Your task to perform on an android device: What's on my calendar today? Image 0: 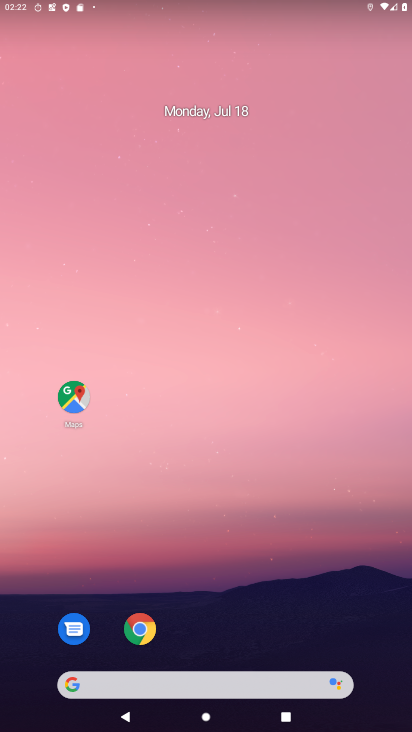
Step 0: press home button
Your task to perform on an android device: What's on my calendar today? Image 1: 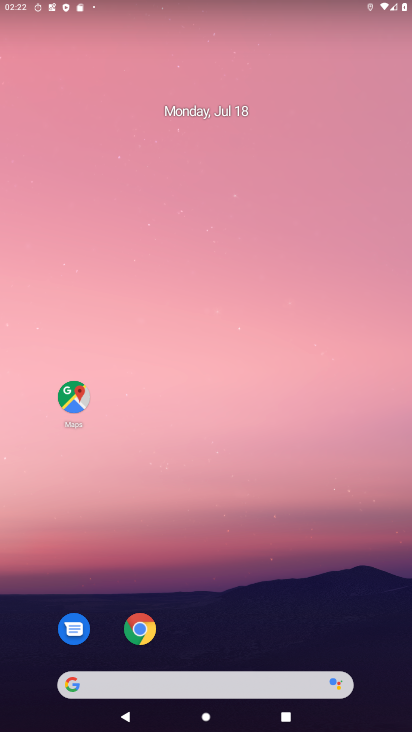
Step 1: drag from (215, 653) to (218, 103)
Your task to perform on an android device: What's on my calendar today? Image 2: 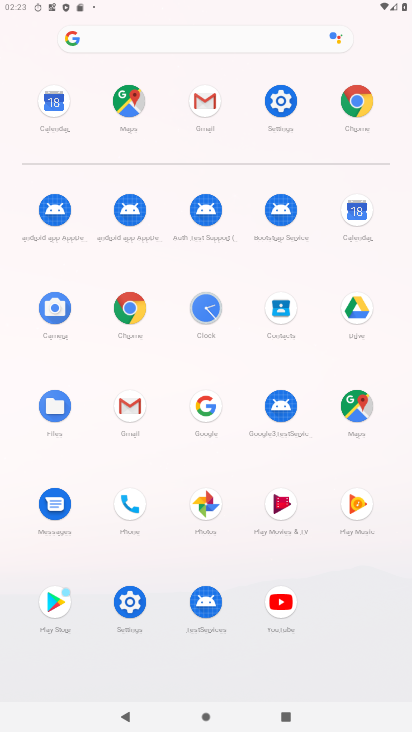
Step 2: click (352, 206)
Your task to perform on an android device: What's on my calendar today? Image 3: 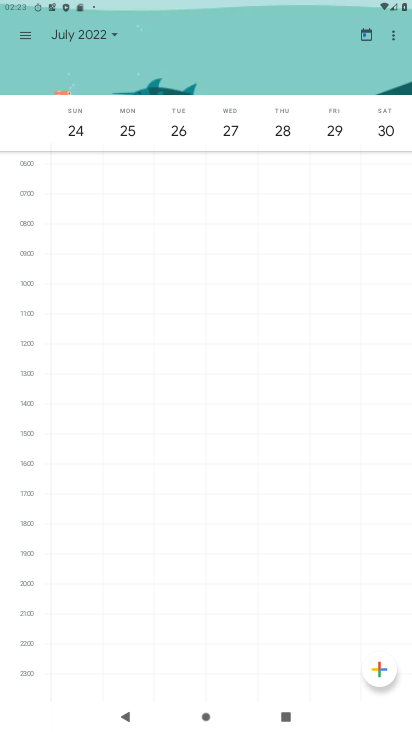
Step 3: drag from (66, 128) to (389, 137)
Your task to perform on an android device: What's on my calendar today? Image 4: 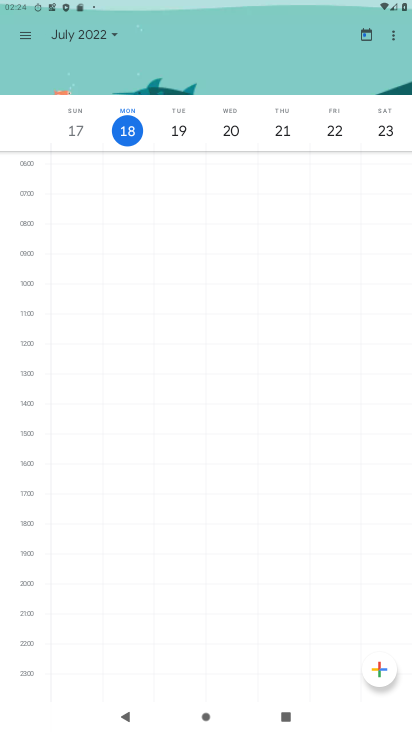
Step 4: click (27, 33)
Your task to perform on an android device: What's on my calendar today? Image 5: 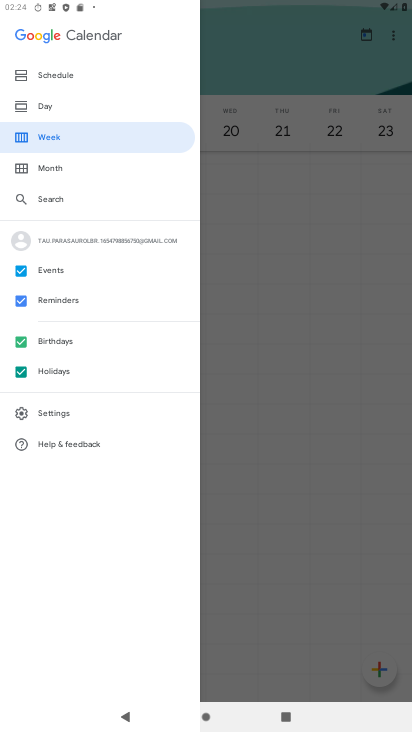
Step 5: click (58, 110)
Your task to perform on an android device: What's on my calendar today? Image 6: 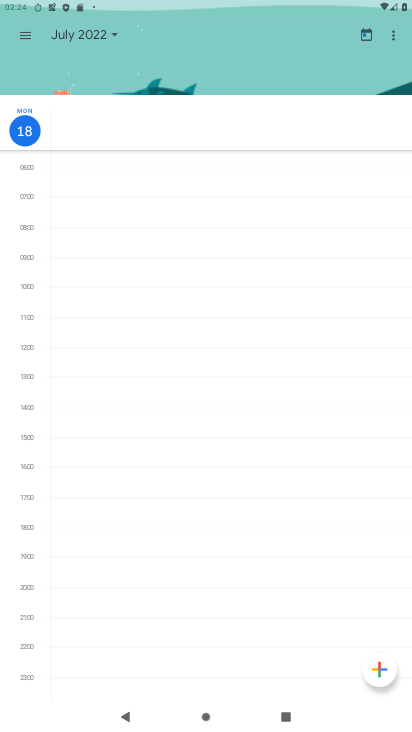
Step 6: task complete